Your task to perform on an android device: search for starred emails in the gmail app Image 0: 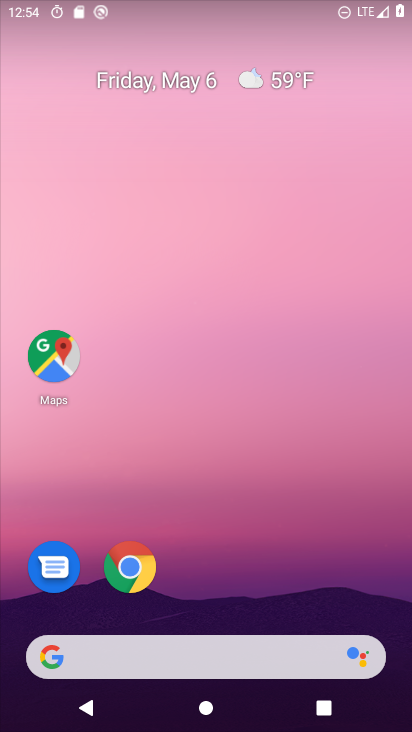
Step 0: drag from (326, 611) to (326, 148)
Your task to perform on an android device: search for starred emails in the gmail app Image 1: 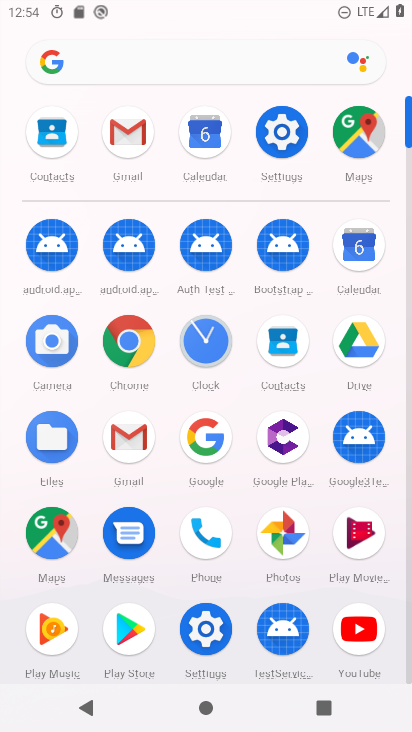
Step 1: click (114, 132)
Your task to perform on an android device: search for starred emails in the gmail app Image 2: 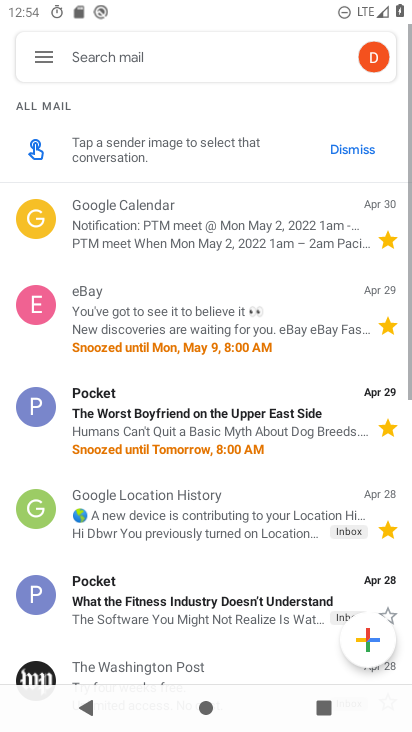
Step 2: click (40, 60)
Your task to perform on an android device: search for starred emails in the gmail app Image 3: 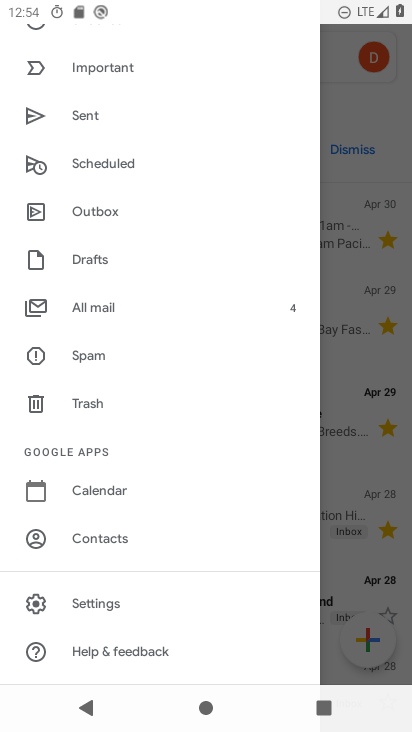
Step 3: drag from (137, 156) to (152, 461)
Your task to perform on an android device: search for starred emails in the gmail app Image 4: 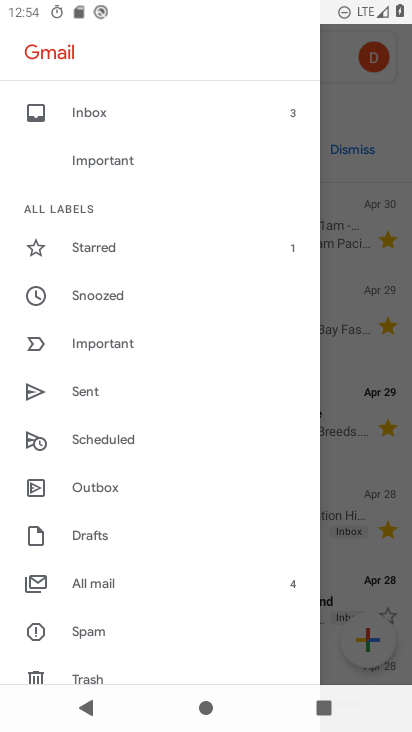
Step 4: click (91, 252)
Your task to perform on an android device: search for starred emails in the gmail app Image 5: 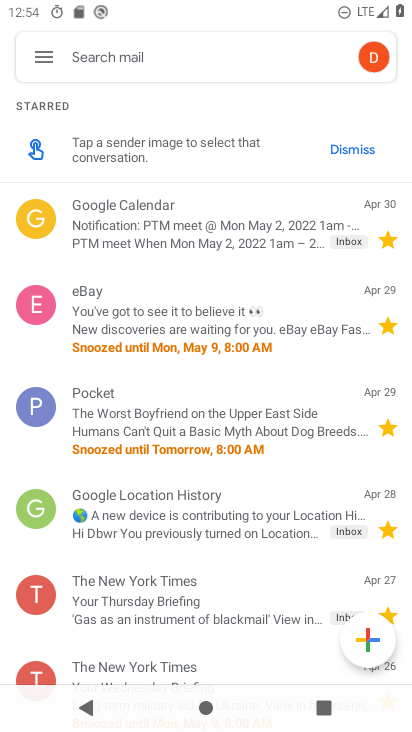
Step 5: task complete